Your task to perform on an android device: open chrome privacy settings Image 0: 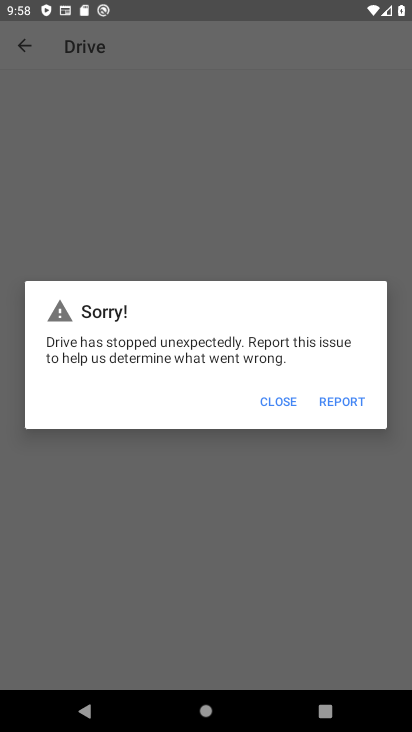
Step 0: press home button
Your task to perform on an android device: open chrome privacy settings Image 1: 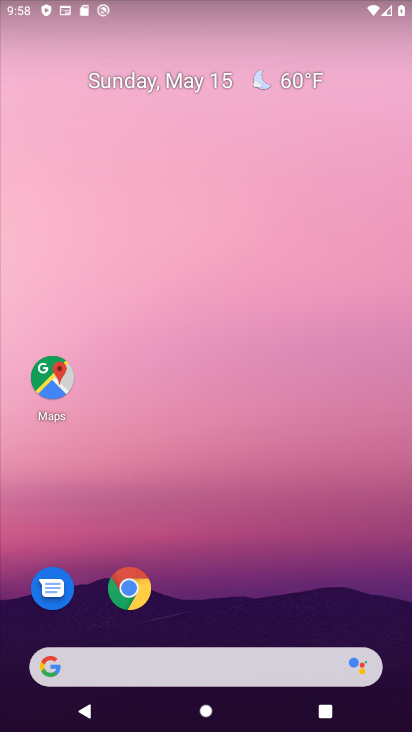
Step 1: click (133, 595)
Your task to perform on an android device: open chrome privacy settings Image 2: 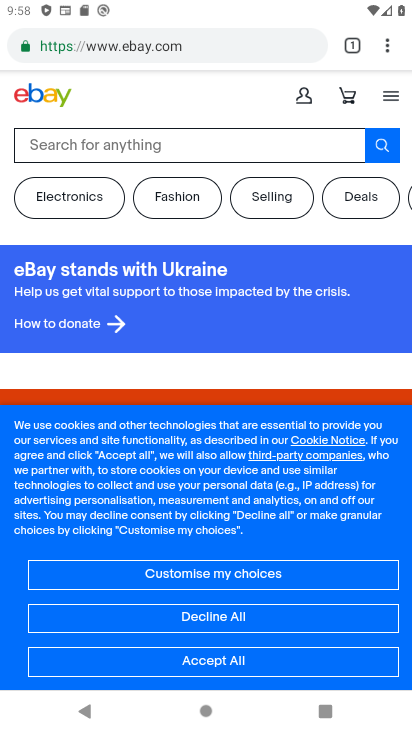
Step 2: click (386, 40)
Your task to perform on an android device: open chrome privacy settings Image 3: 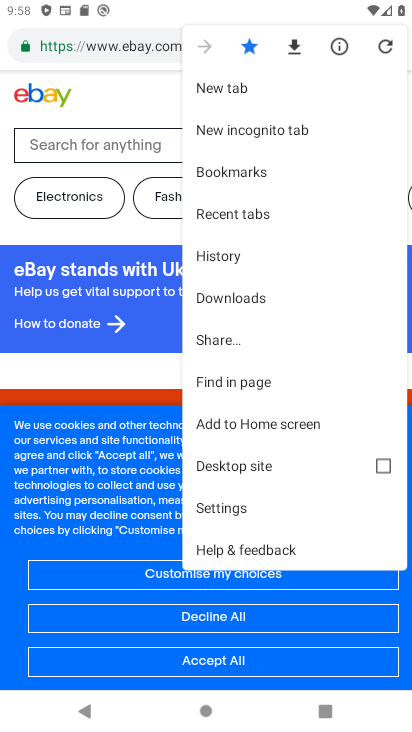
Step 3: click (275, 506)
Your task to perform on an android device: open chrome privacy settings Image 4: 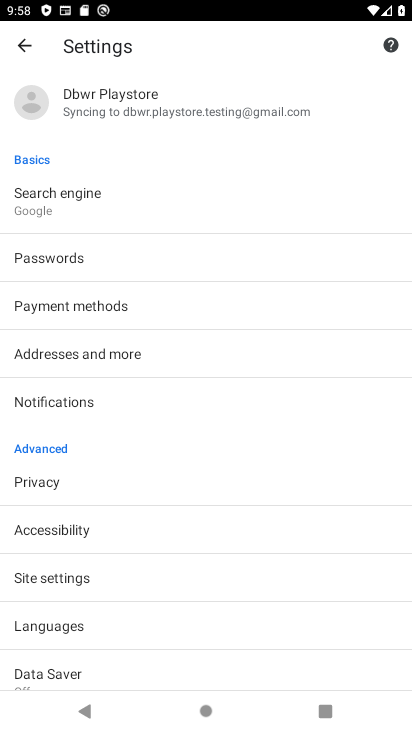
Step 4: click (160, 483)
Your task to perform on an android device: open chrome privacy settings Image 5: 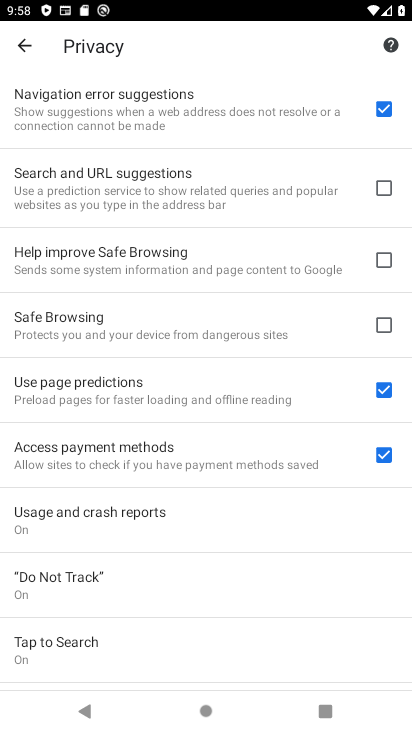
Step 5: task complete